Your task to perform on an android device: open a new tab in the chrome app Image 0: 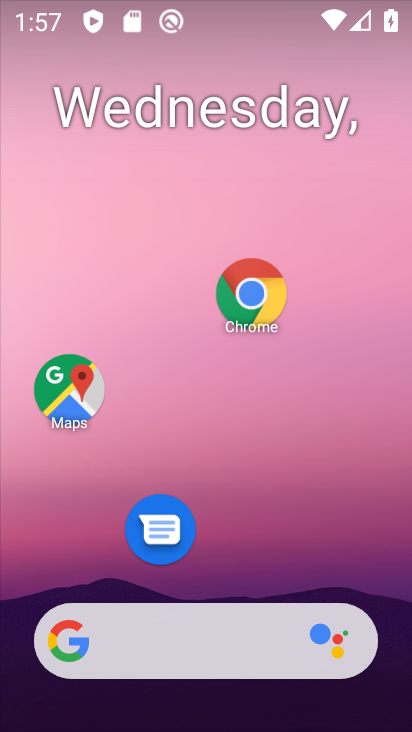
Step 0: drag from (186, 617) to (154, 380)
Your task to perform on an android device: open a new tab in the chrome app Image 1: 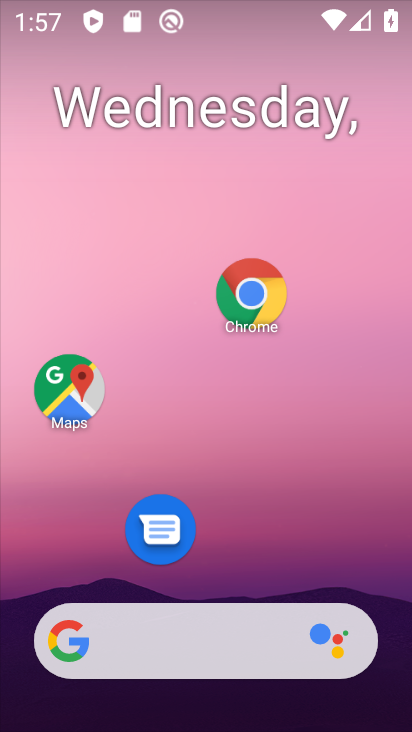
Step 1: click (257, 304)
Your task to perform on an android device: open a new tab in the chrome app Image 2: 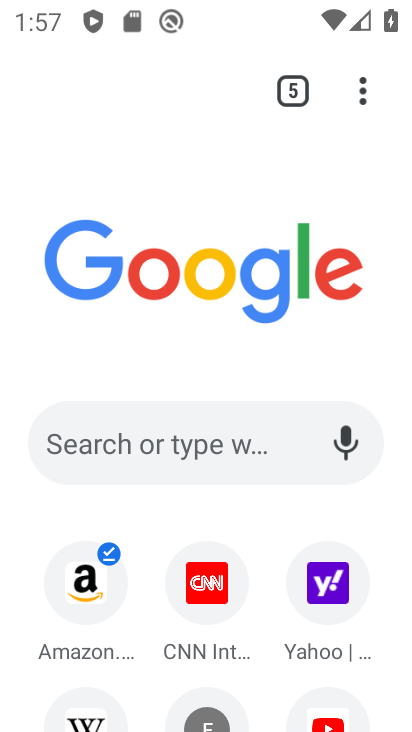
Step 2: drag from (295, 101) to (291, 230)
Your task to perform on an android device: open a new tab in the chrome app Image 3: 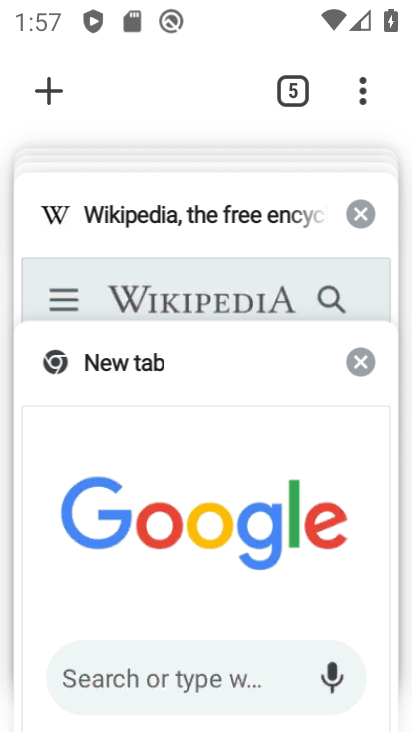
Step 3: click (63, 92)
Your task to perform on an android device: open a new tab in the chrome app Image 4: 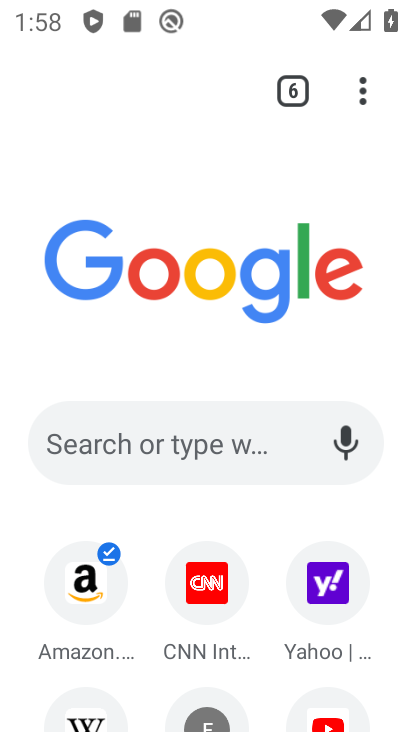
Step 4: task complete